Your task to perform on an android device: see tabs open on other devices in the chrome app Image 0: 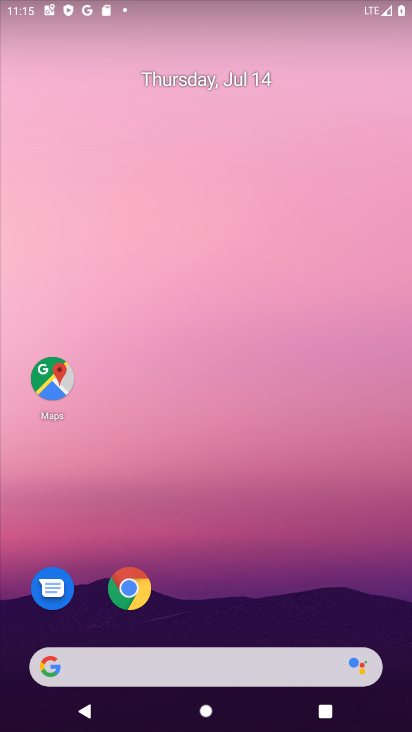
Step 0: click (134, 589)
Your task to perform on an android device: see tabs open on other devices in the chrome app Image 1: 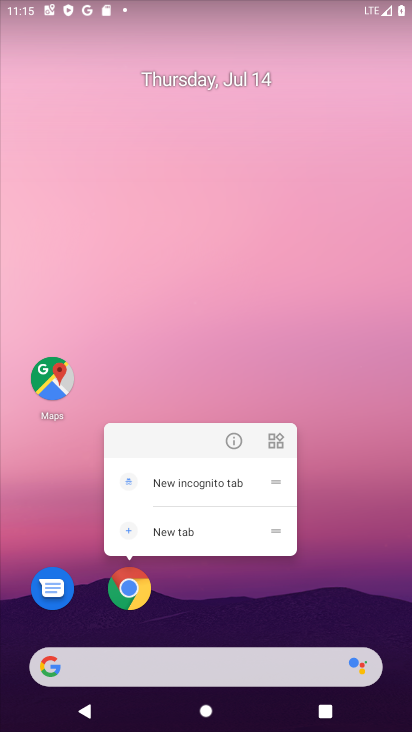
Step 1: click (134, 589)
Your task to perform on an android device: see tabs open on other devices in the chrome app Image 2: 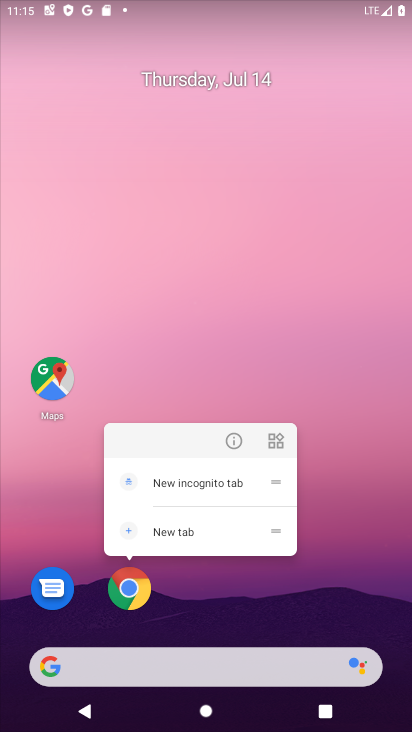
Step 2: click (134, 589)
Your task to perform on an android device: see tabs open on other devices in the chrome app Image 3: 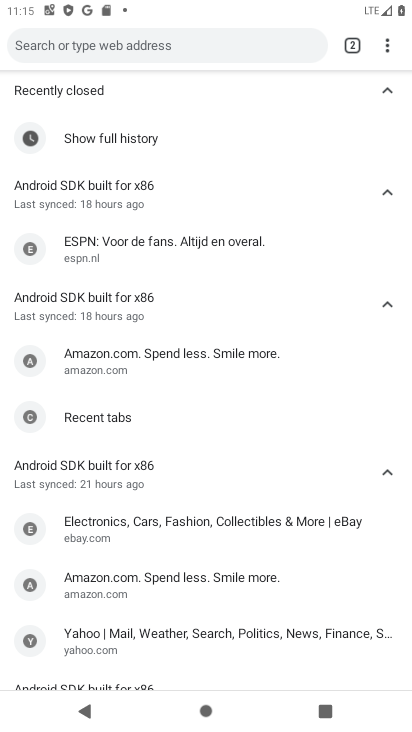
Step 3: click (389, 44)
Your task to perform on an android device: see tabs open on other devices in the chrome app Image 4: 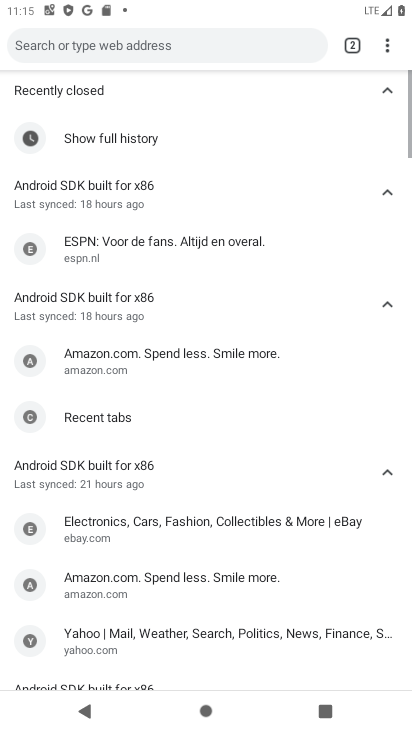
Step 4: click (389, 44)
Your task to perform on an android device: see tabs open on other devices in the chrome app Image 5: 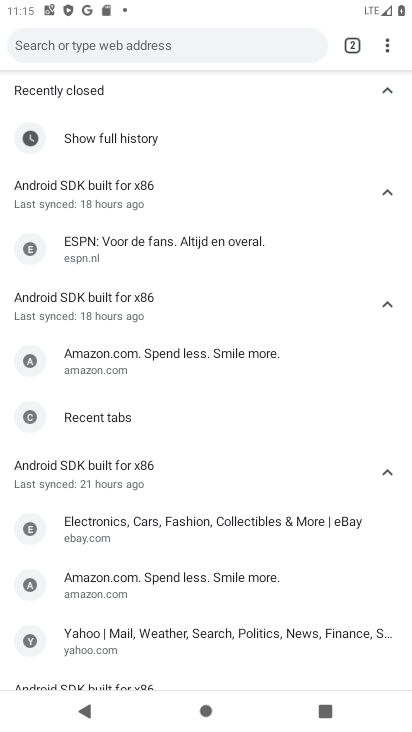
Step 5: task complete